Your task to perform on an android device: change the clock style Image 0: 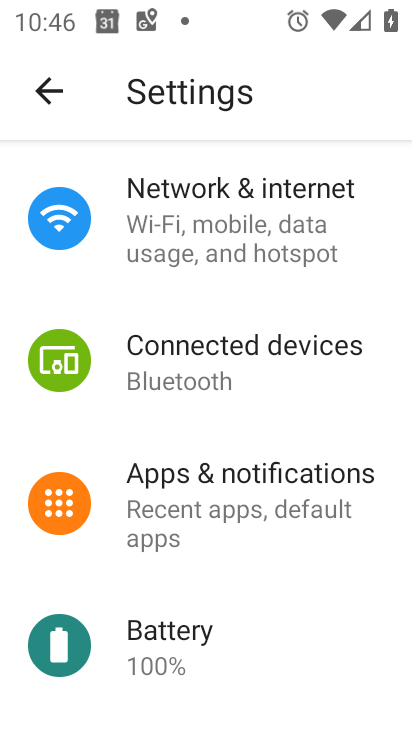
Step 0: press home button
Your task to perform on an android device: change the clock style Image 1: 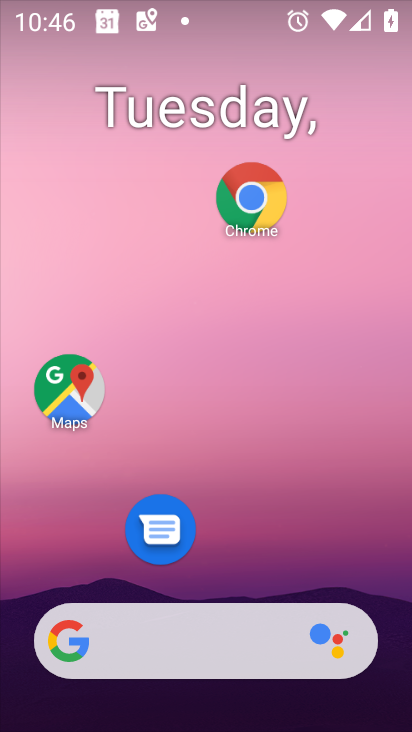
Step 1: drag from (257, 578) to (196, 234)
Your task to perform on an android device: change the clock style Image 2: 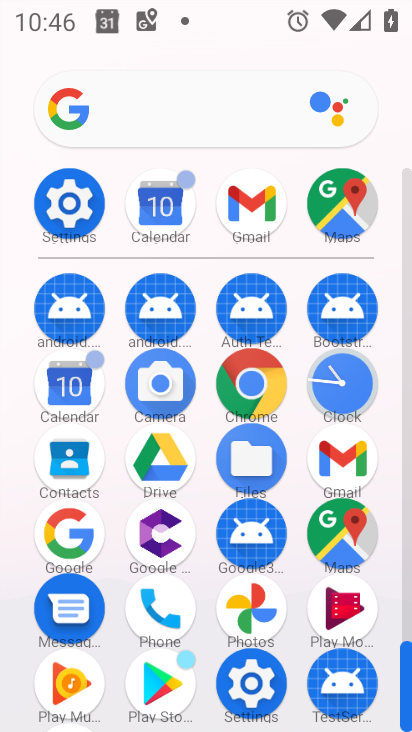
Step 2: click (346, 380)
Your task to perform on an android device: change the clock style Image 3: 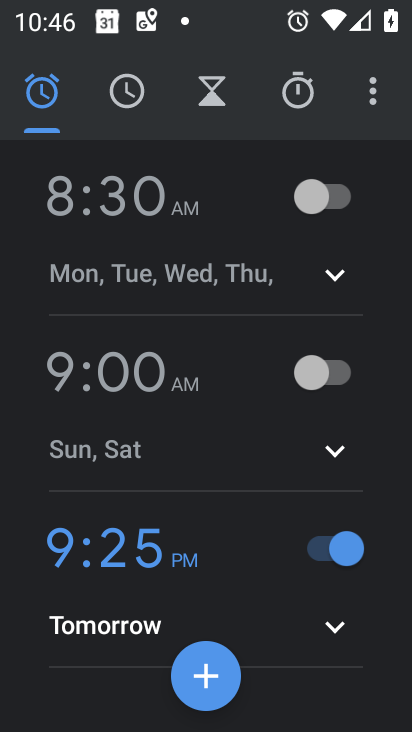
Step 3: click (387, 96)
Your task to perform on an android device: change the clock style Image 4: 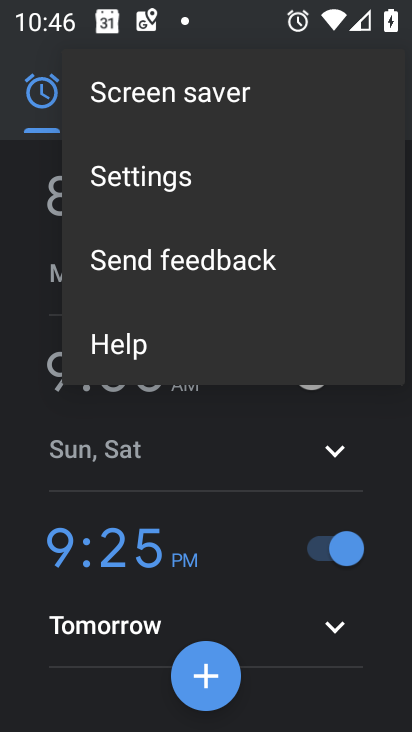
Step 4: click (180, 168)
Your task to perform on an android device: change the clock style Image 5: 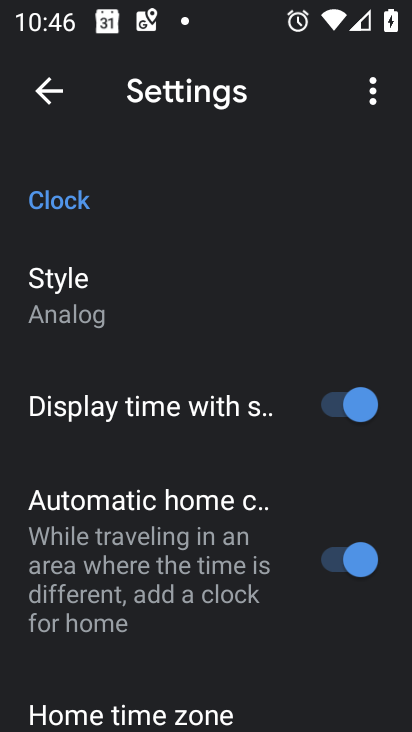
Step 5: click (127, 294)
Your task to perform on an android device: change the clock style Image 6: 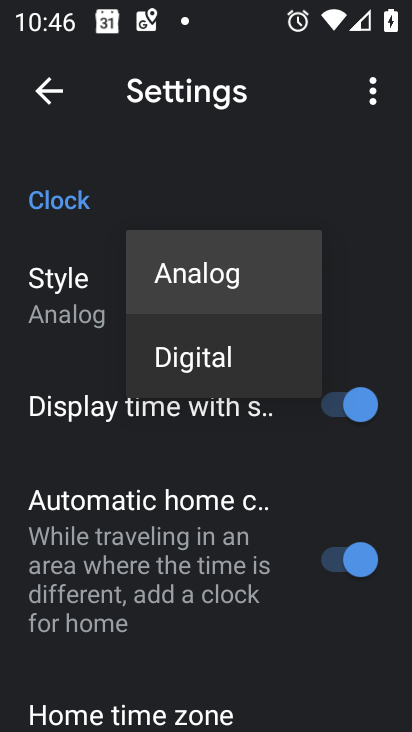
Step 6: click (182, 332)
Your task to perform on an android device: change the clock style Image 7: 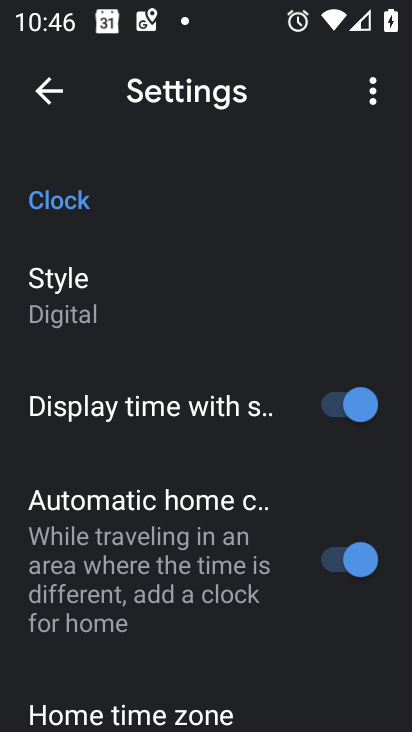
Step 7: task complete